Your task to perform on an android device: move an email to a new category in the gmail app Image 0: 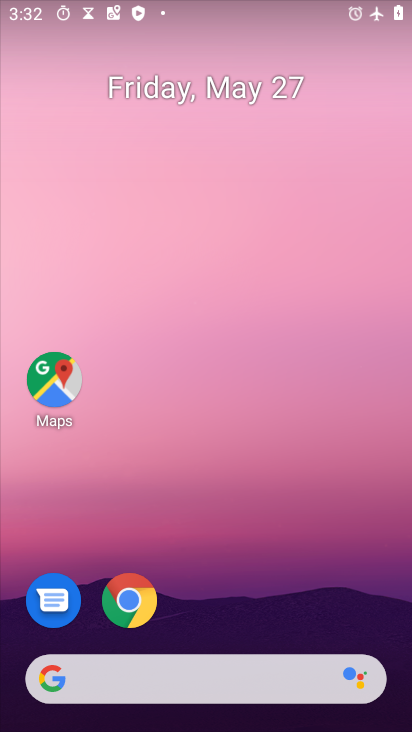
Step 0: drag from (277, 528) to (235, 2)
Your task to perform on an android device: move an email to a new category in the gmail app Image 1: 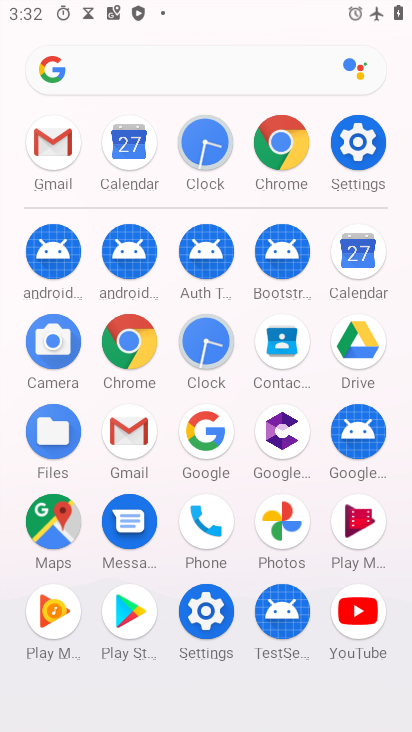
Step 1: drag from (17, 458) to (15, 167)
Your task to perform on an android device: move an email to a new category in the gmail app Image 2: 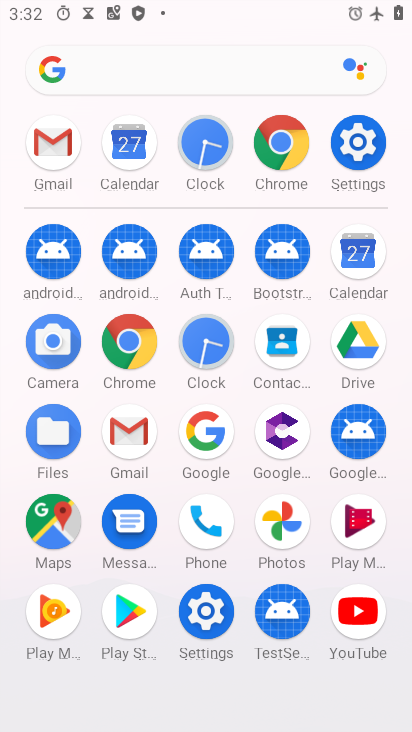
Step 2: click (131, 426)
Your task to perform on an android device: move an email to a new category in the gmail app Image 3: 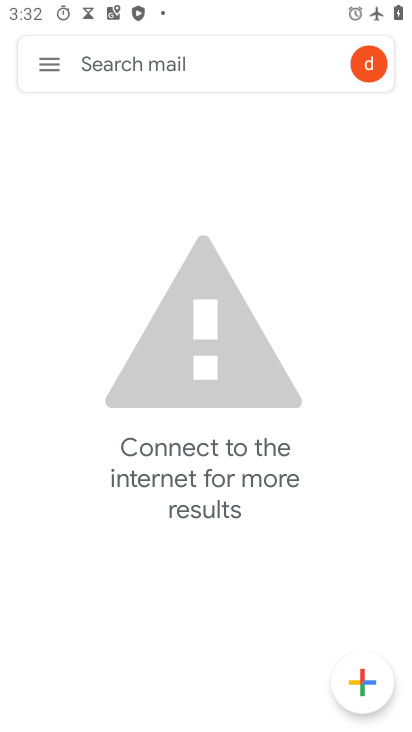
Step 3: click (48, 46)
Your task to perform on an android device: move an email to a new category in the gmail app Image 4: 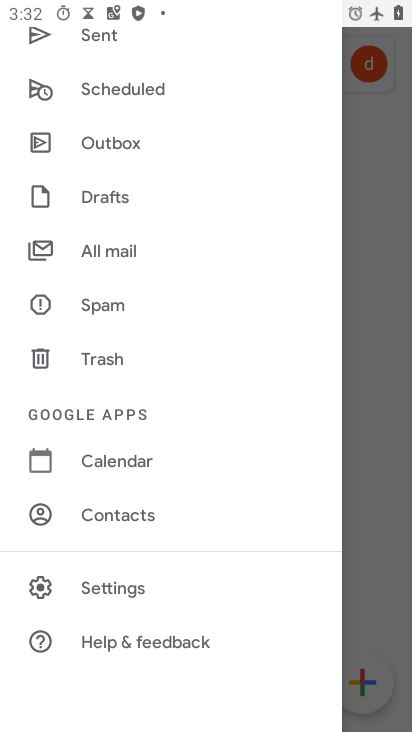
Step 4: click (112, 241)
Your task to perform on an android device: move an email to a new category in the gmail app Image 5: 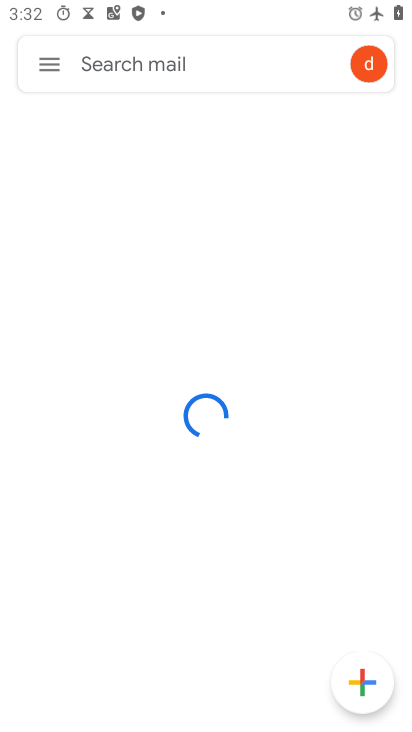
Step 5: click (45, 71)
Your task to perform on an android device: move an email to a new category in the gmail app Image 6: 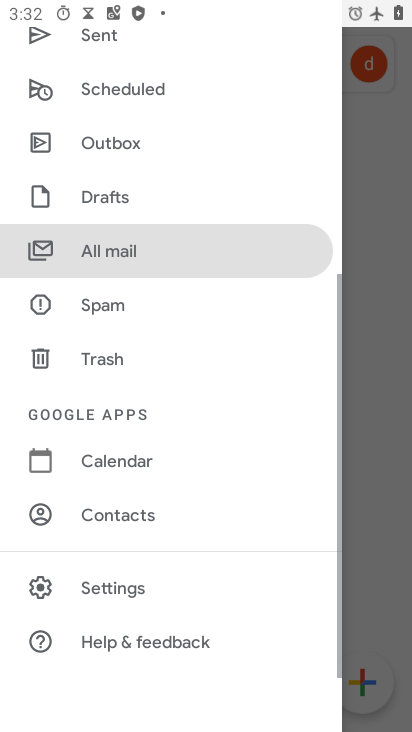
Step 6: click (123, 247)
Your task to perform on an android device: move an email to a new category in the gmail app Image 7: 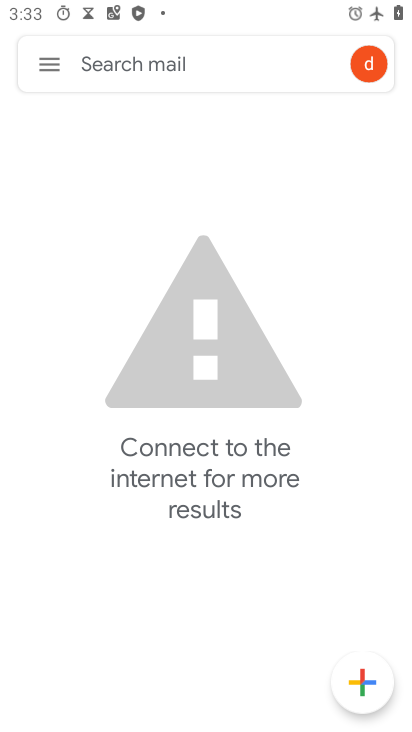
Step 7: click (49, 63)
Your task to perform on an android device: move an email to a new category in the gmail app Image 8: 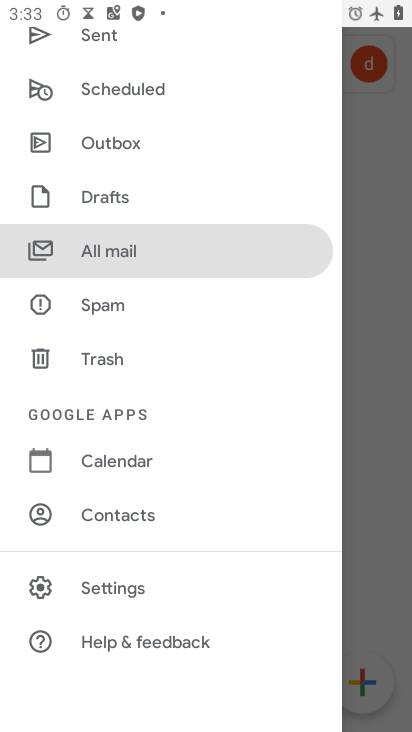
Step 8: drag from (140, 162) to (173, 400)
Your task to perform on an android device: move an email to a new category in the gmail app Image 9: 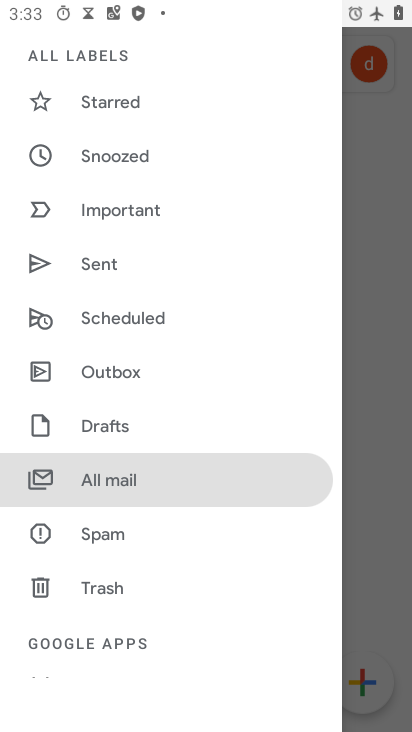
Step 9: click (142, 96)
Your task to perform on an android device: move an email to a new category in the gmail app Image 10: 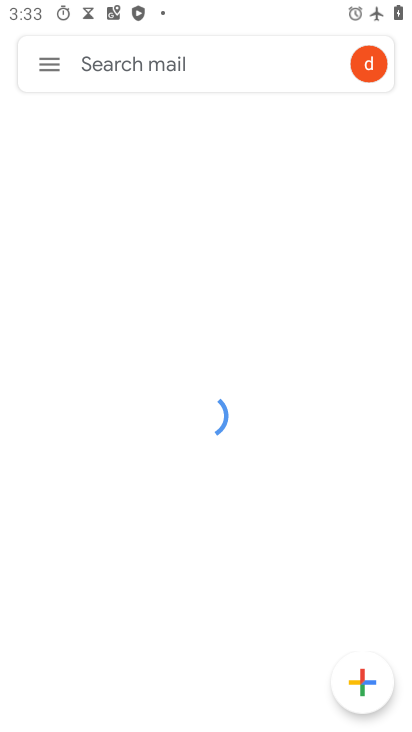
Step 10: click (52, 57)
Your task to perform on an android device: move an email to a new category in the gmail app Image 11: 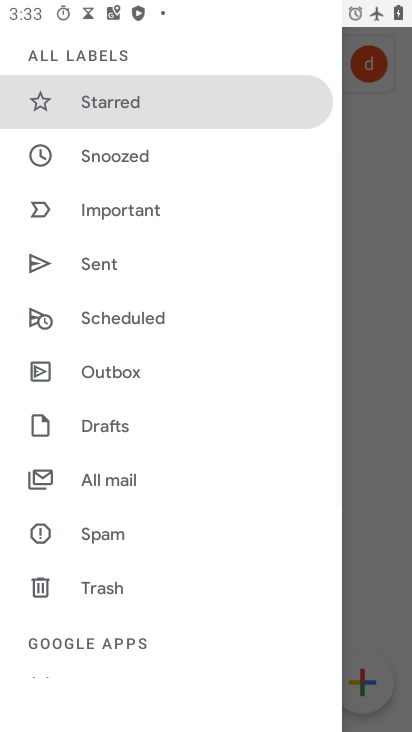
Step 11: click (134, 168)
Your task to perform on an android device: move an email to a new category in the gmail app Image 12: 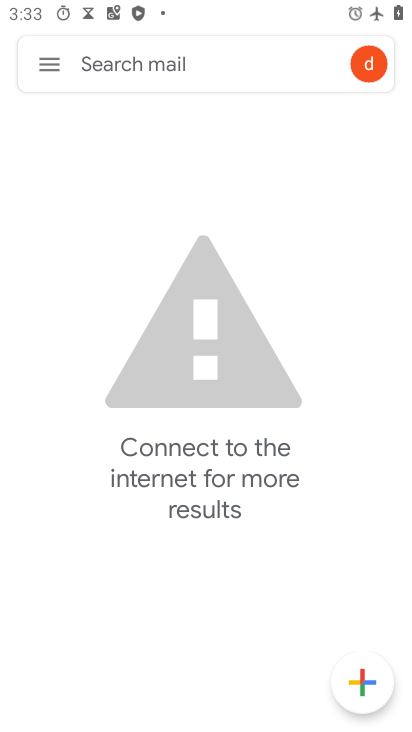
Step 12: task complete